Your task to perform on an android device: toggle javascript in the chrome app Image 0: 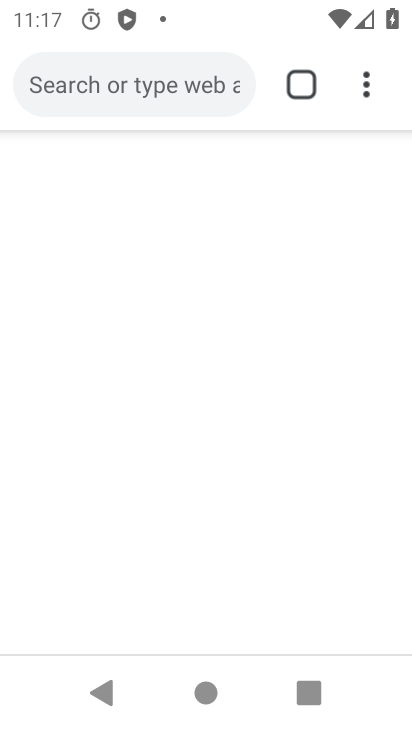
Step 0: drag from (334, 631) to (246, 270)
Your task to perform on an android device: toggle javascript in the chrome app Image 1: 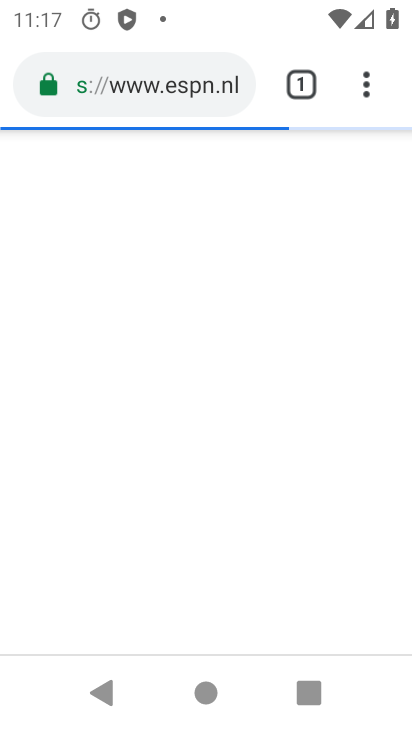
Step 1: drag from (364, 83) to (295, 145)
Your task to perform on an android device: toggle javascript in the chrome app Image 2: 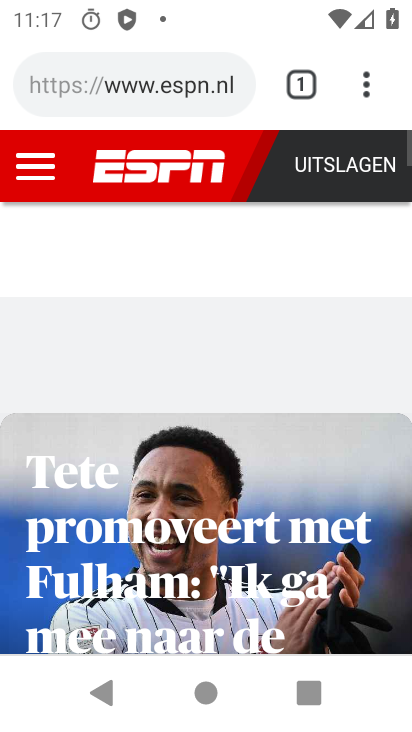
Step 2: drag from (367, 72) to (263, 233)
Your task to perform on an android device: toggle javascript in the chrome app Image 3: 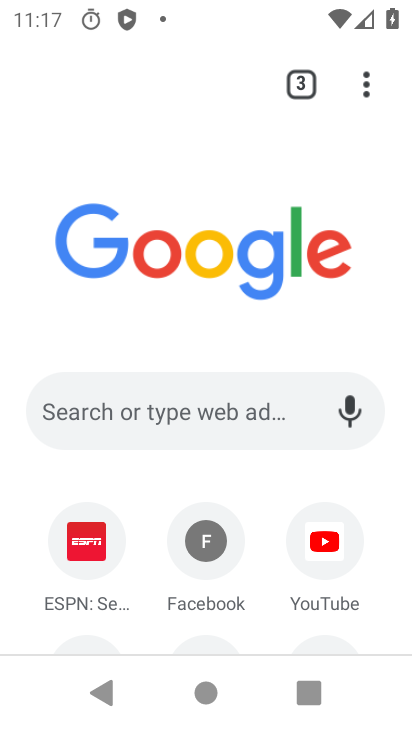
Step 3: drag from (358, 79) to (71, 506)
Your task to perform on an android device: toggle javascript in the chrome app Image 4: 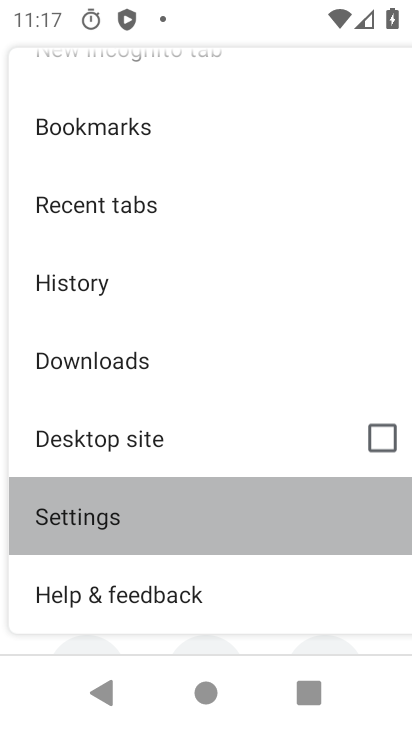
Step 4: click (71, 506)
Your task to perform on an android device: toggle javascript in the chrome app Image 5: 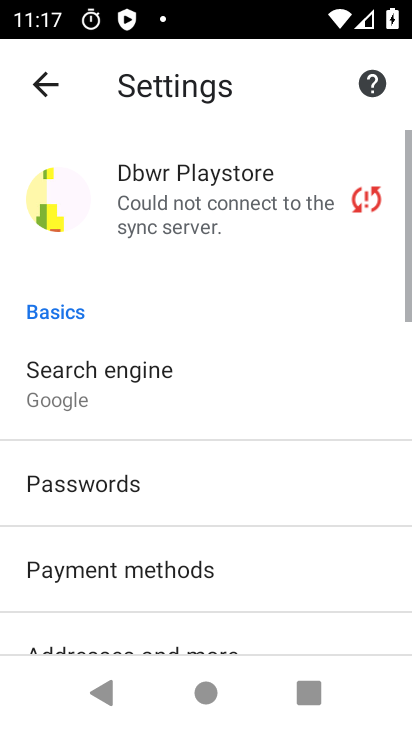
Step 5: drag from (123, 501) to (79, 145)
Your task to perform on an android device: toggle javascript in the chrome app Image 6: 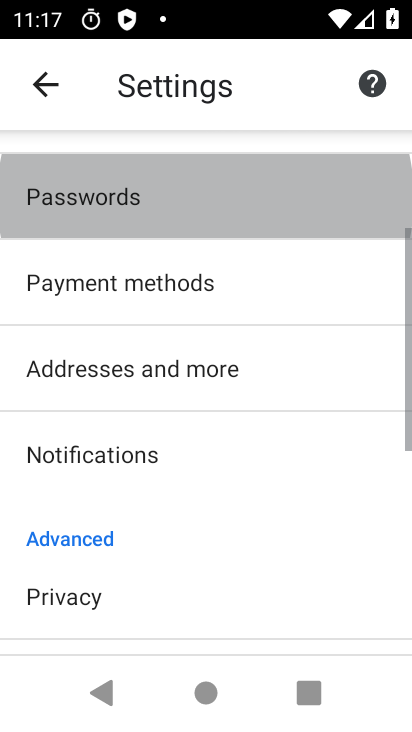
Step 6: drag from (129, 444) to (98, 147)
Your task to perform on an android device: toggle javascript in the chrome app Image 7: 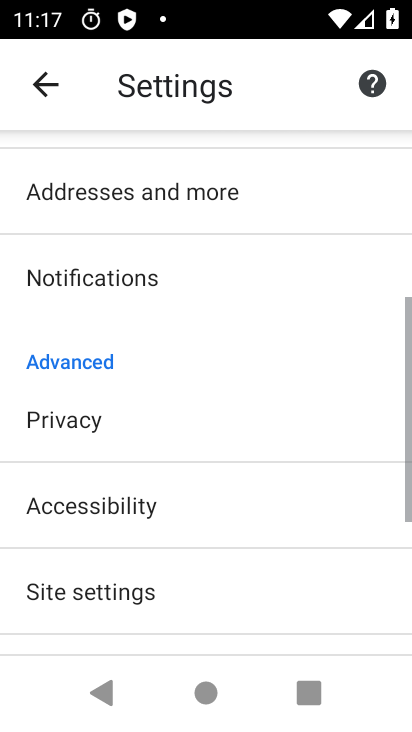
Step 7: drag from (217, 525) to (215, 143)
Your task to perform on an android device: toggle javascript in the chrome app Image 8: 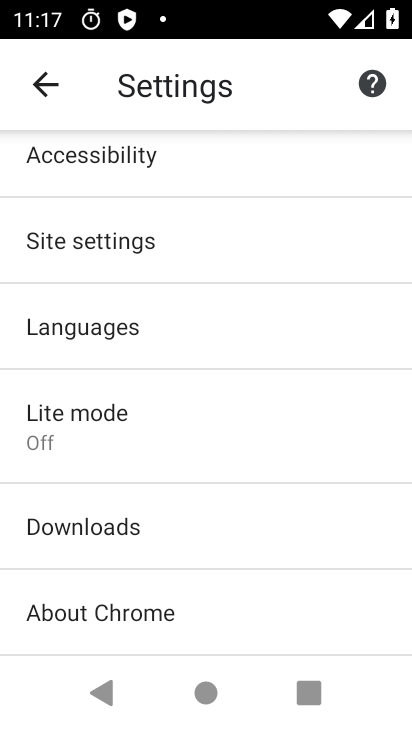
Step 8: click (87, 239)
Your task to perform on an android device: toggle javascript in the chrome app Image 9: 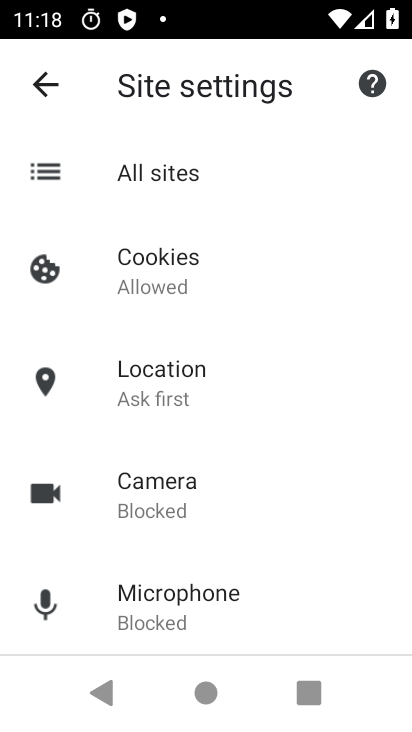
Step 9: drag from (237, 526) to (180, 121)
Your task to perform on an android device: toggle javascript in the chrome app Image 10: 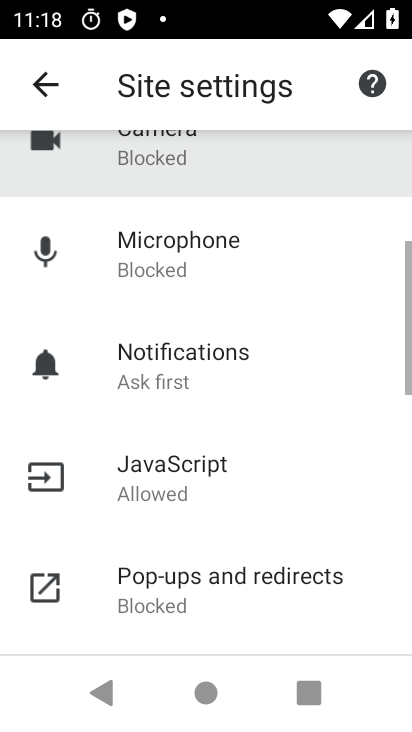
Step 10: drag from (242, 509) to (204, 189)
Your task to perform on an android device: toggle javascript in the chrome app Image 11: 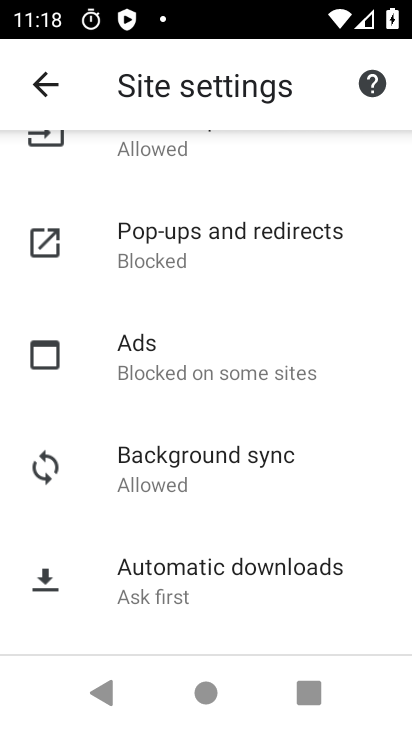
Step 11: click (208, 490)
Your task to perform on an android device: toggle javascript in the chrome app Image 12: 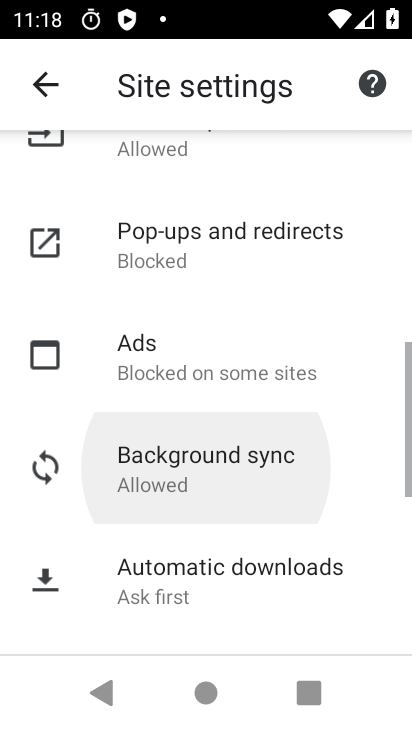
Step 12: drag from (274, 481) to (321, 567)
Your task to perform on an android device: toggle javascript in the chrome app Image 13: 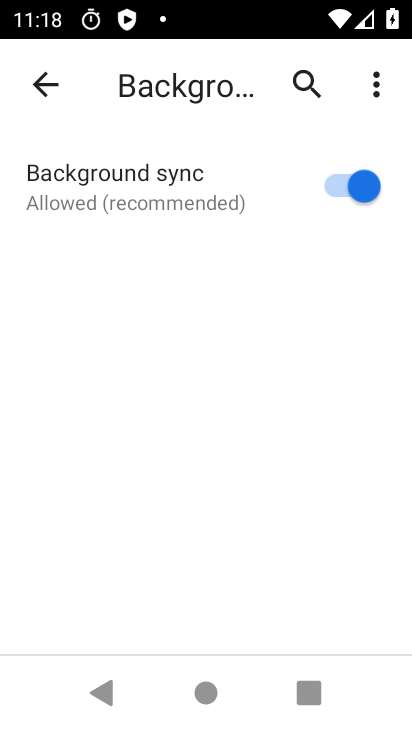
Step 13: click (35, 82)
Your task to perform on an android device: toggle javascript in the chrome app Image 14: 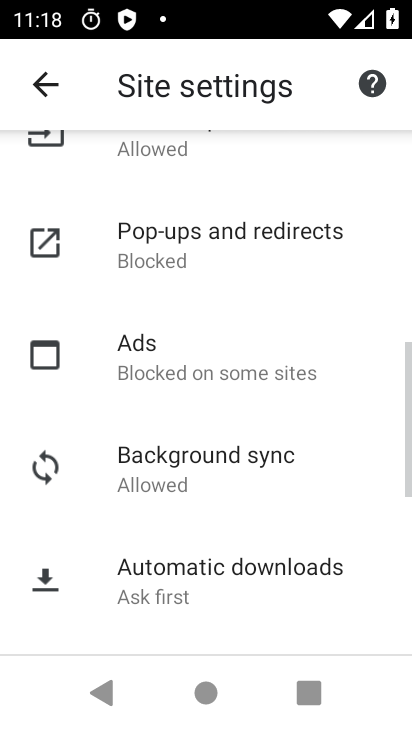
Step 14: drag from (133, 289) to (283, 559)
Your task to perform on an android device: toggle javascript in the chrome app Image 15: 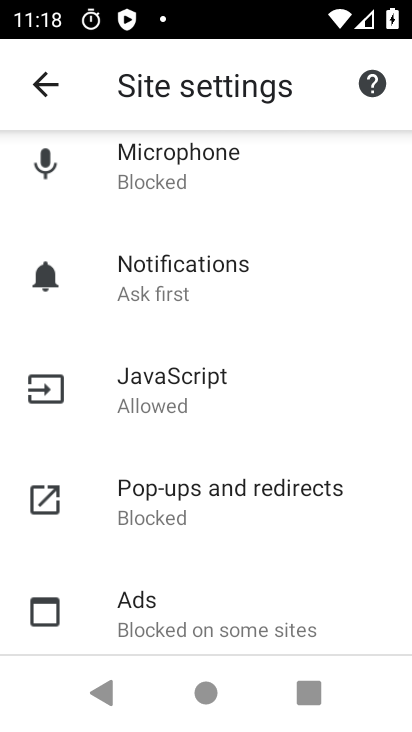
Step 15: drag from (232, 622) to (169, 389)
Your task to perform on an android device: toggle javascript in the chrome app Image 16: 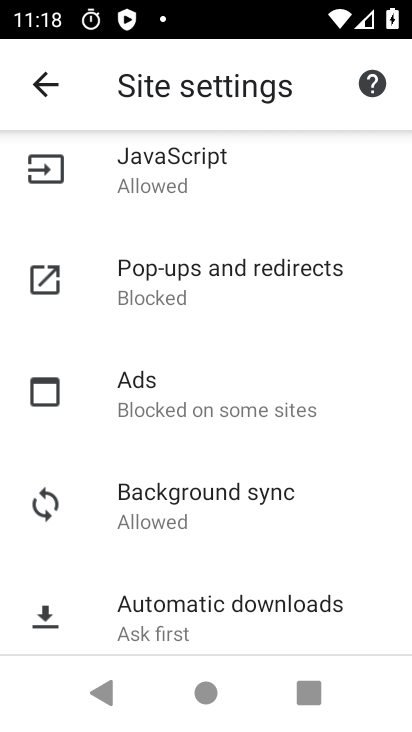
Step 16: drag from (160, 265) to (202, 533)
Your task to perform on an android device: toggle javascript in the chrome app Image 17: 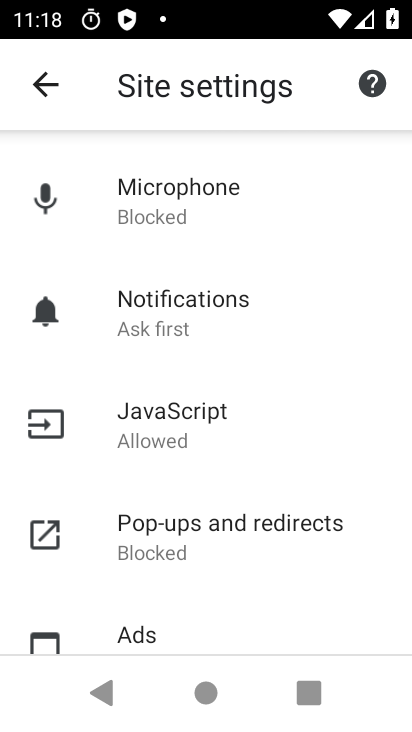
Step 17: click (174, 420)
Your task to perform on an android device: toggle javascript in the chrome app Image 18: 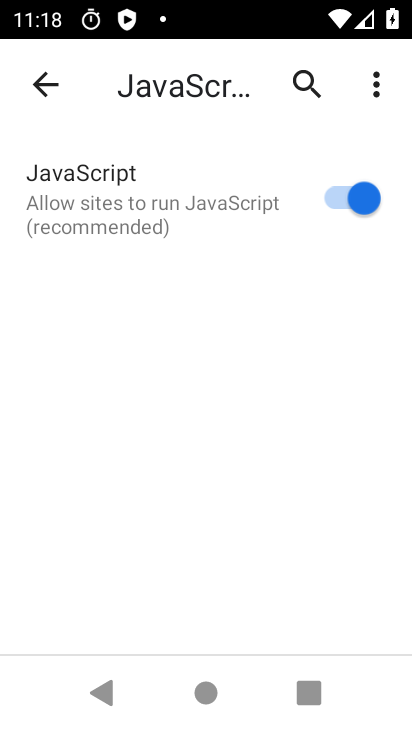
Step 18: task complete